Your task to perform on an android device: Go to CNN.com Image 0: 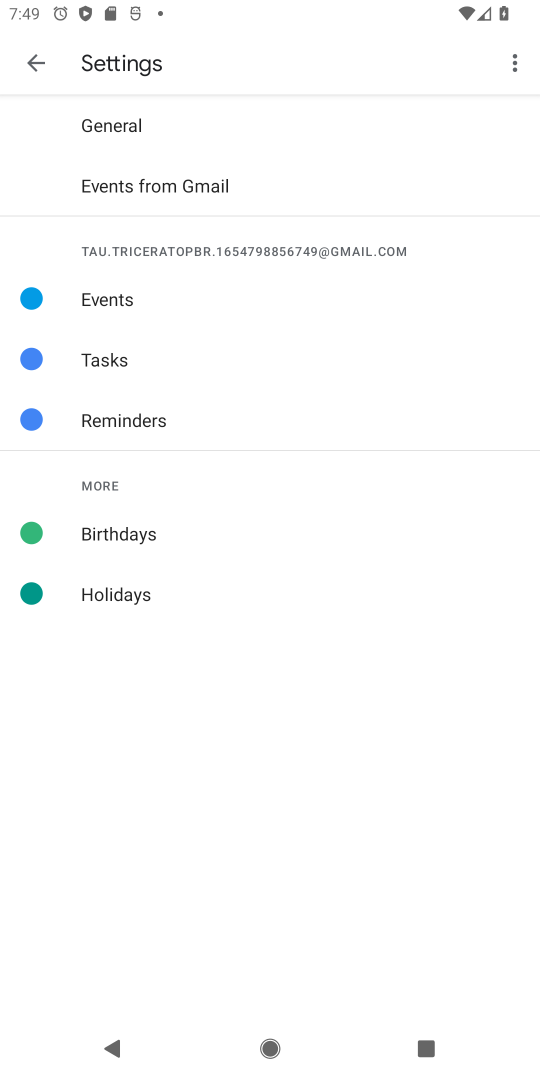
Step 0: press back button
Your task to perform on an android device: Go to CNN.com Image 1: 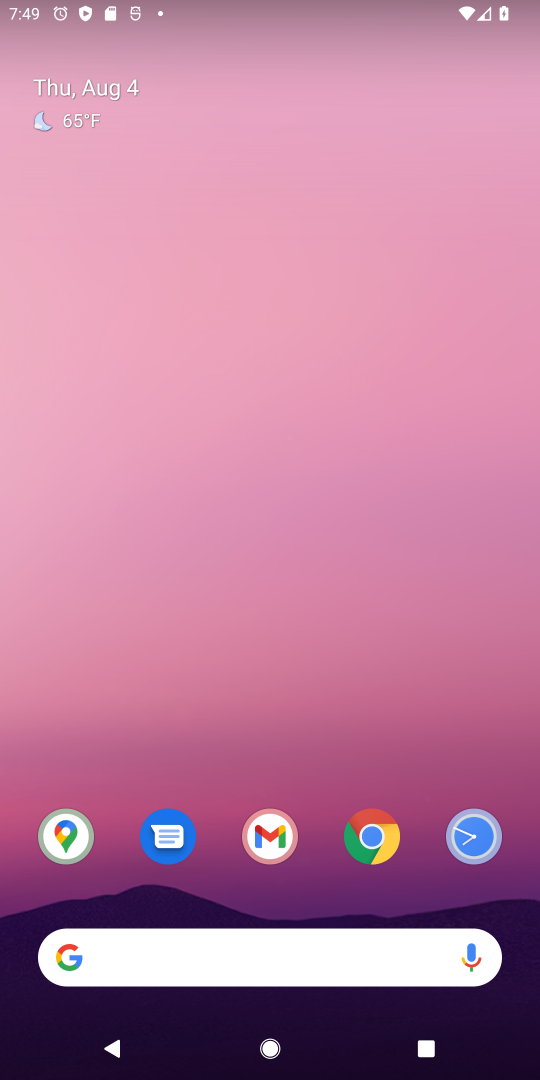
Step 1: click (374, 828)
Your task to perform on an android device: Go to CNN.com Image 2: 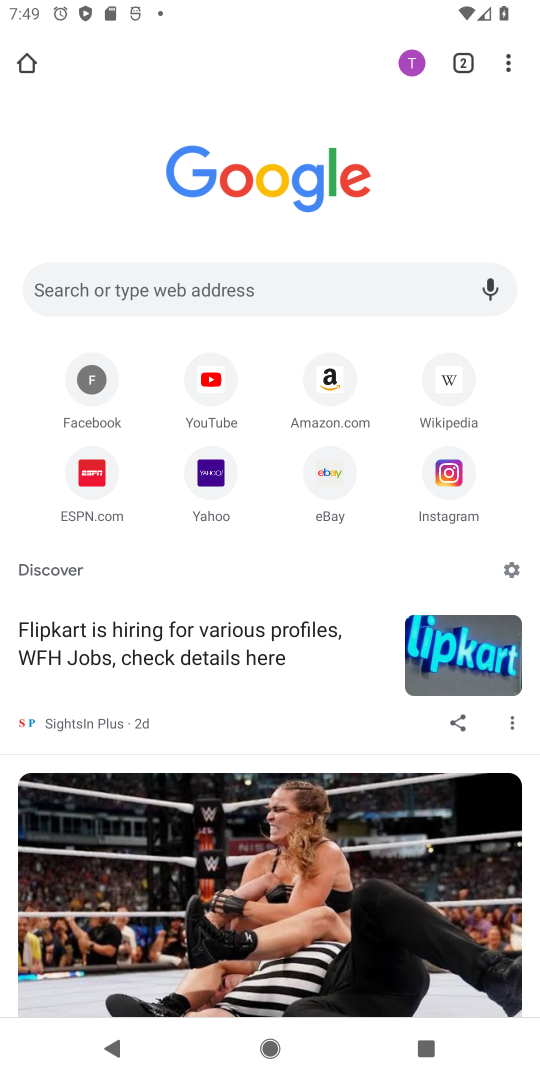
Step 2: click (161, 274)
Your task to perform on an android device: Go to CNN.com Image 3: 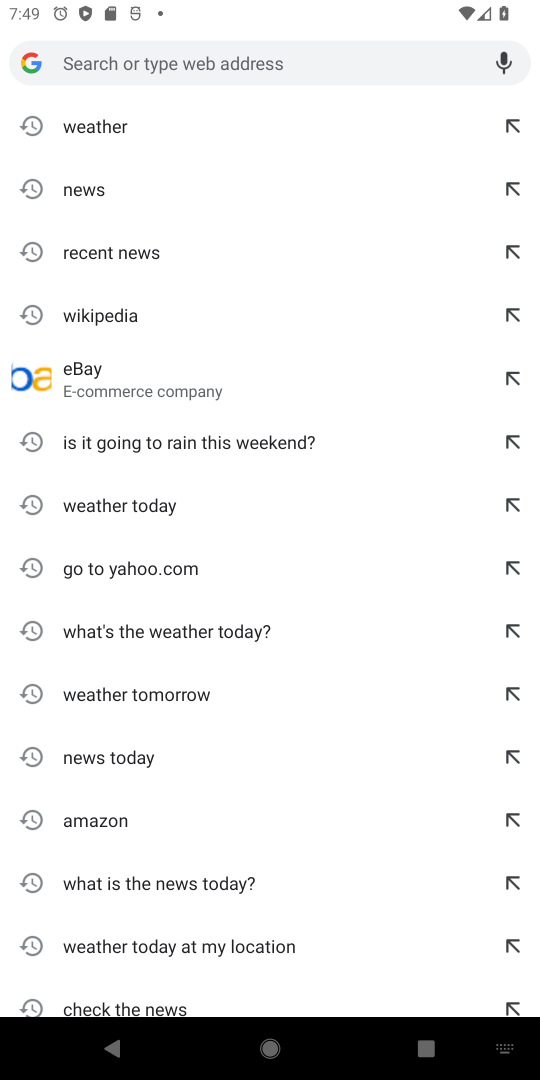
Step 3: type "cnn.com"
Your task to perform on an android device: Go to CNN.com Image 4: 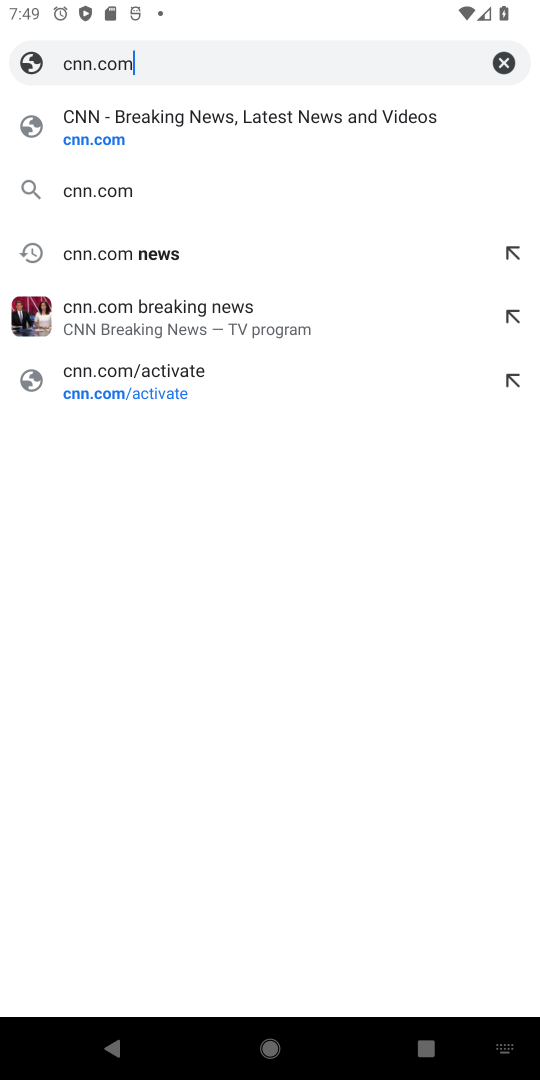
Step 4: click (141, 132)
Your task to perform on an android device: Go to CNN.com Image 5: 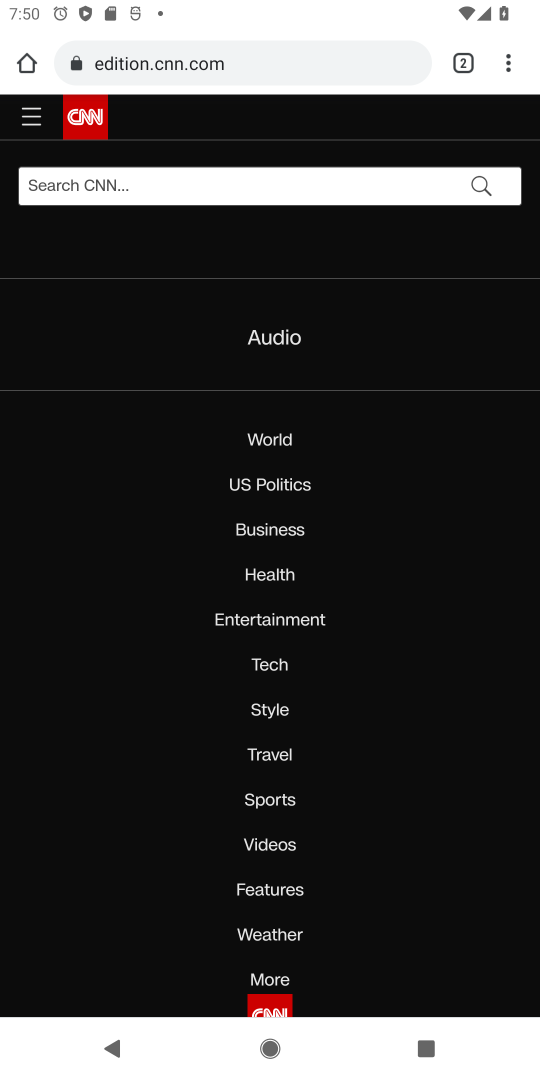
Step 5: task complete